Your task to perform on an android device: When is my next appointment? Image 0: 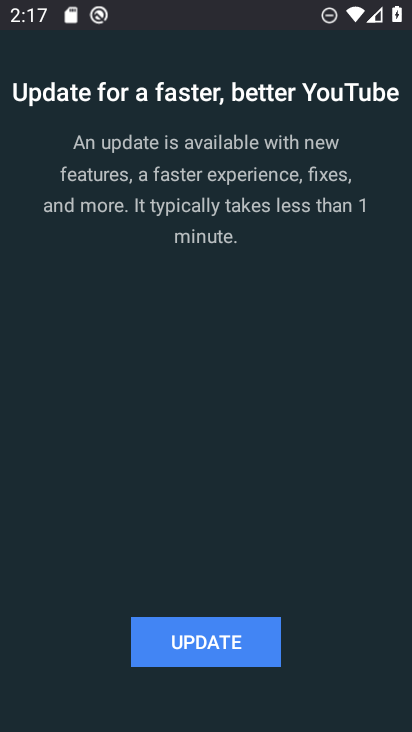
Step 0: press home button
Your task to perform on an android device: When is my next appointment? Image 1: 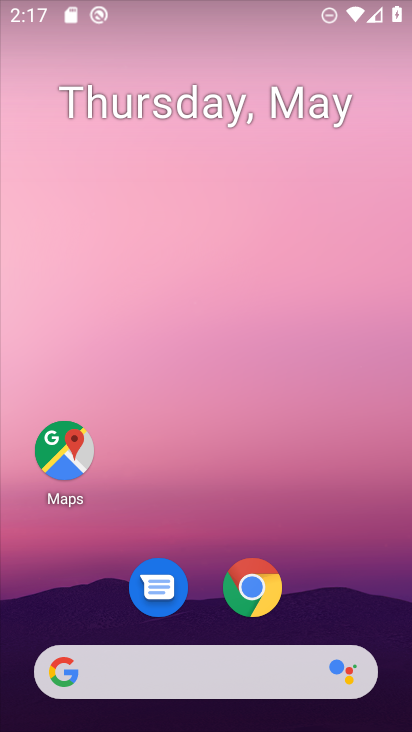
Step 1: drag from (319, 451) to (364, 25)
Your task to perform on an android device: When is my next appointment? Image 2: 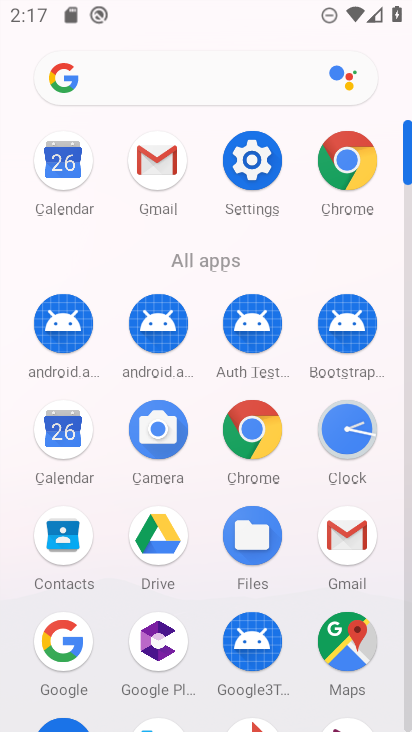
Step 2: click (72, 423)
Your task to perform on an android device: When is my next appointment? Image 3: 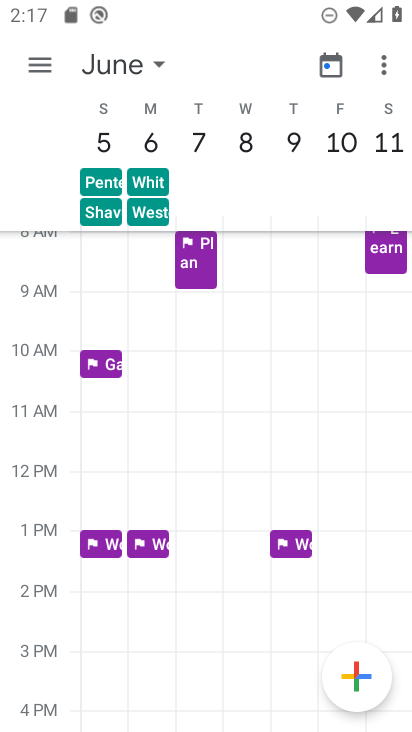
Step 3: click (111, 72)
Your task to perform on an android device: When is my next appointment? Image 4: 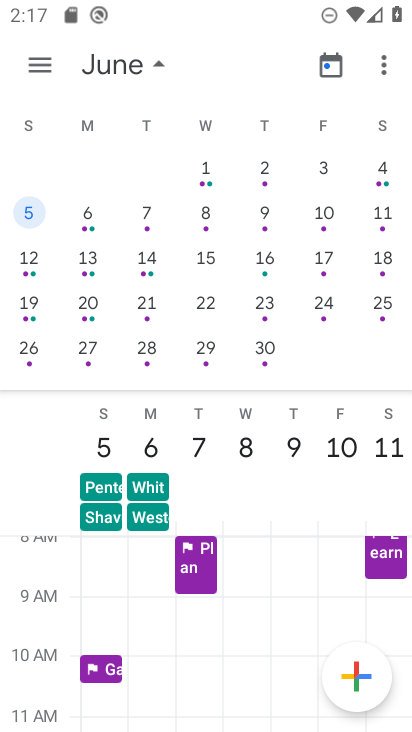
Step 4: drag from (44, 210) to (384, 224)
Your task to perform on an android device: When is my next appointment? Image 5: 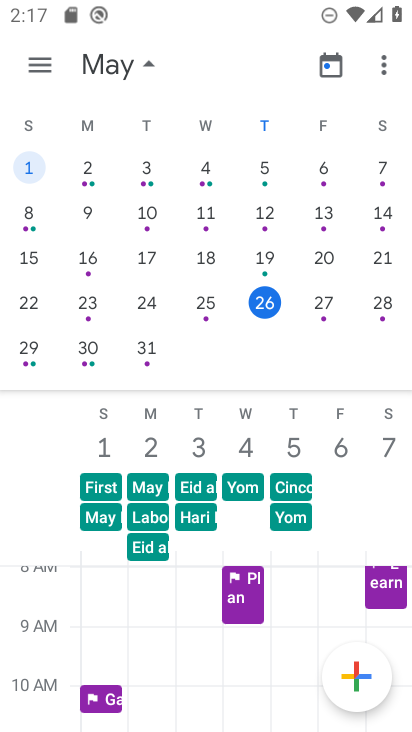
Step 5: click (250, 300)
Your task to perform on an android device: When is my next appointment? Image 6: 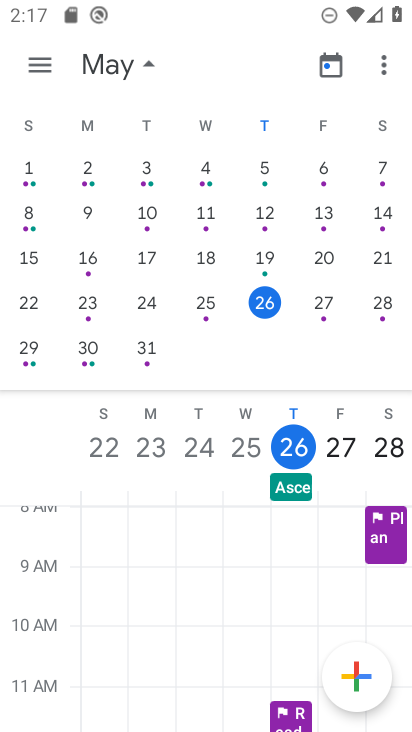
Step 6: task complete